Your task to perform on an android device: Check the weather Image 0: 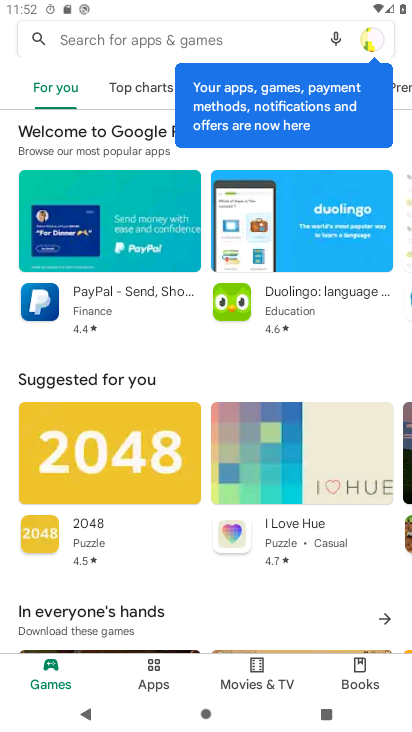
Step 0: press home button
Your task to perform on an android device: Check the weather Image 1: 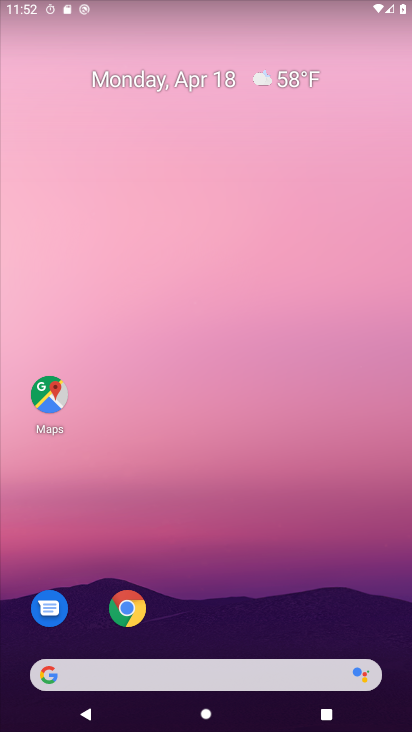
Step 1: click (293, 81)
Your task to perform on an android device: Check the weather Image 2: 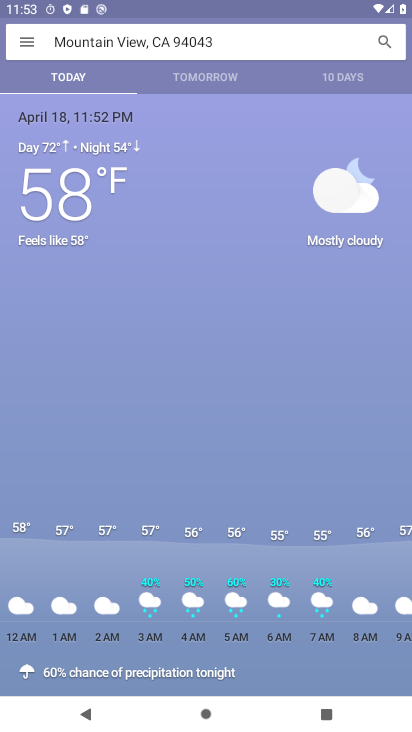
Step 2: task complete